Your task to perform on an android device: turn on translation in the chrome app Image 0: 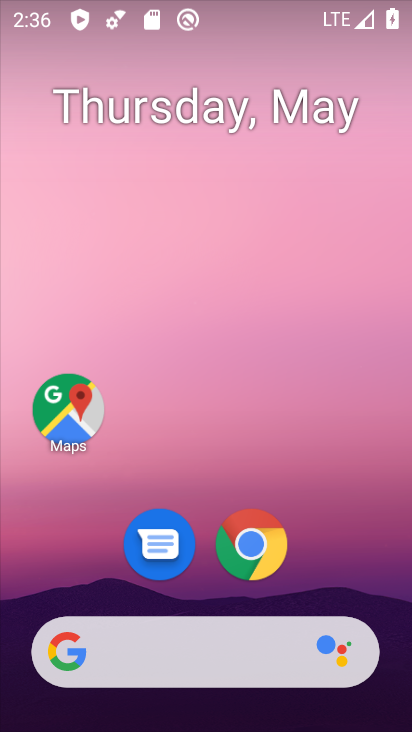
Step 0: click (266, 555)
Your task to perform on an android device: turn on translation in the chrome app Image 1: 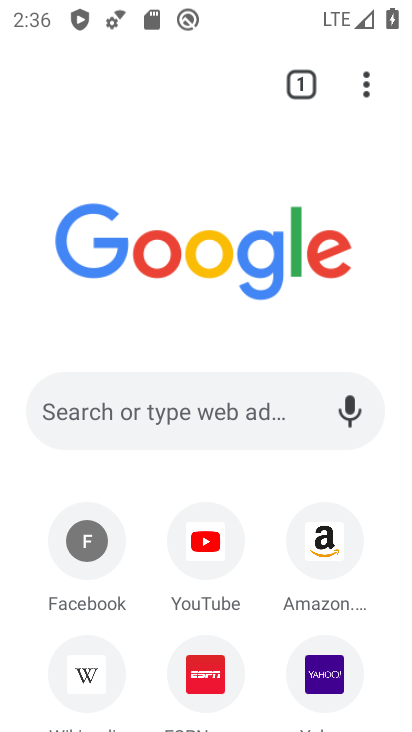
Step 1: click (367, 81)
Your task to perform on an android device: turn on translation in the chrome app Image 2: 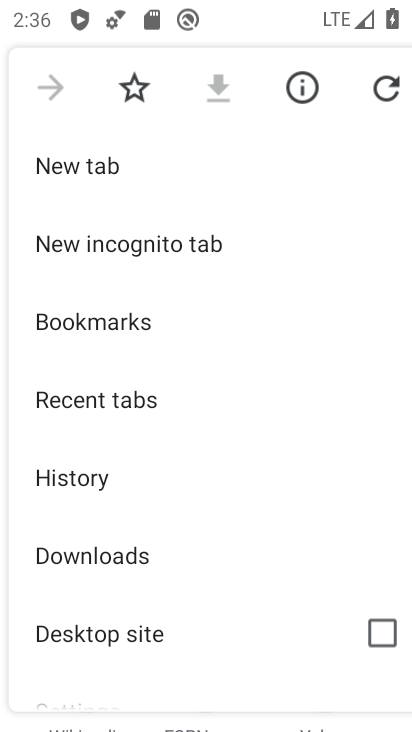
Step 2: drag from (169, 648) to (208, 236)
Your task to perform on an android device: turn on translation in the chrome app Image 3: 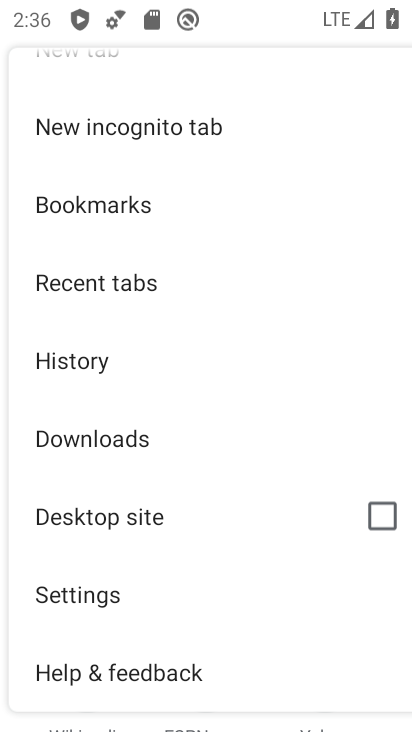
Step 3: click (124, 598)
Your task to perform on an android device: turn on translation in the chrome app Image 4: 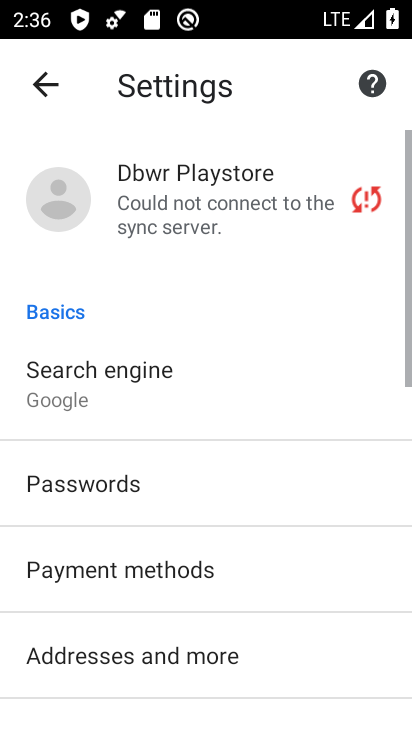
Step 4: drag from (308, 616) to (265, 193)
Your task to perform on an android device: turn on translation in the chrome app Image 5: 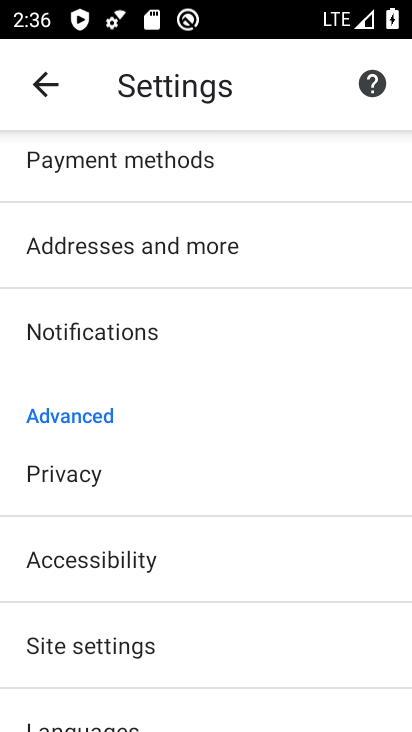
Step 5: drag from (257, 615) to (262, 269)
Your task to perform on an android device: turn on translation in the chrome app Image 6: 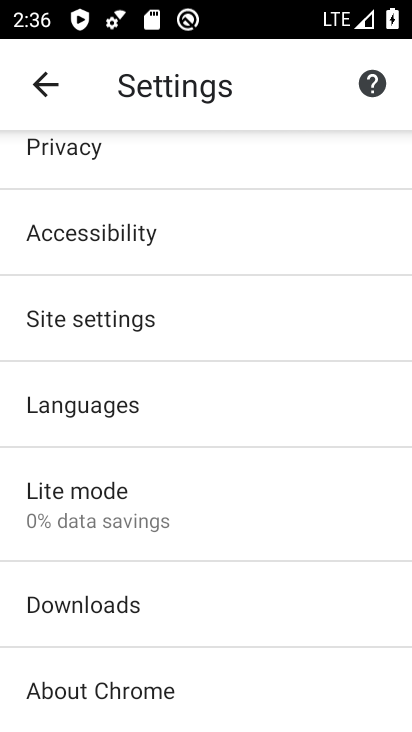
Step 6: click (197, 415)
Your task to perform on an android device: turn on translation in the chrome app Image 7: 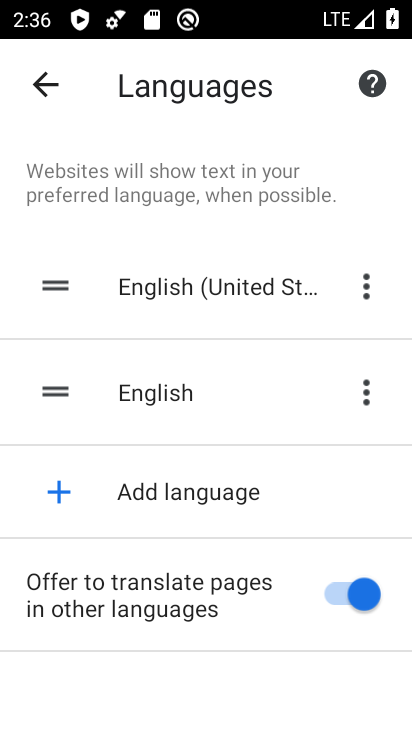
Step 7: task complete